Your task to perform on an android device: Open privacy settings Image 0: 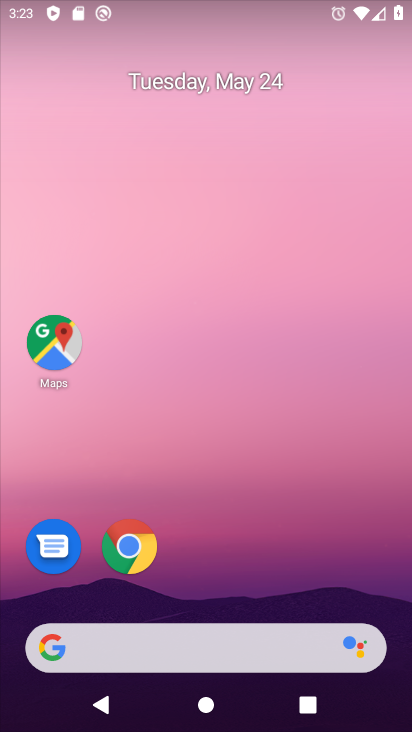
Step 0: drag from (335, 631) to (232, 56)
Your task to perform on an android device: Open privacy settings Image 1: 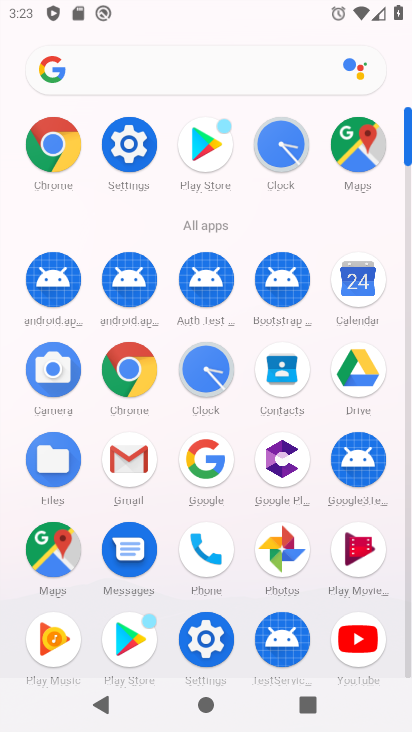
Step 1: click (135, 140)
Your task to perform on an android device: Open privacy settings Image 2: 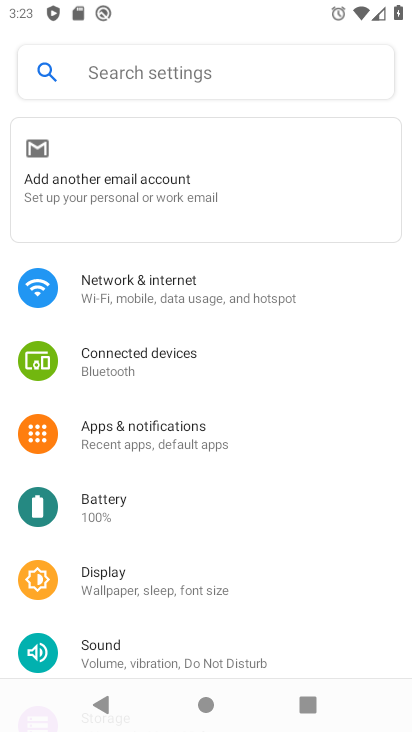
Step 2: drag from (129, 550) to (181, 105)
Your task to perform on an android device: Open privacy settings Image 3: 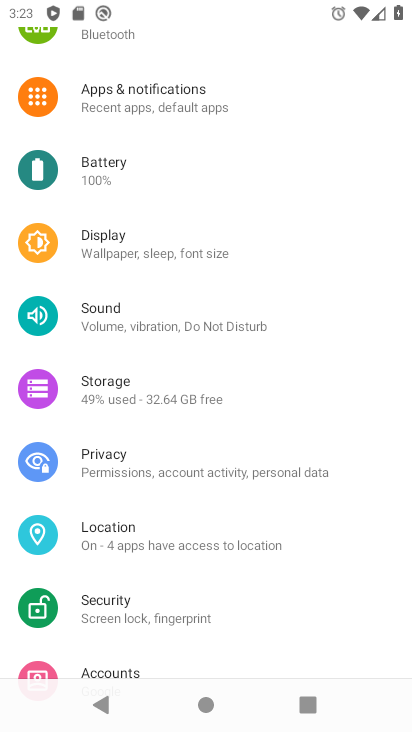
Step 3: click (103, 439)
Your task to perform on an android device: Open privacy settings Image 4: 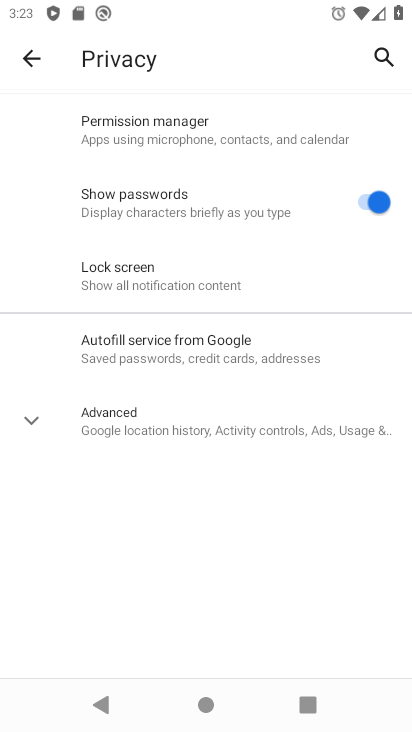
Step 4: task complete